Your task to perform on an android device: Open Google Image 0: 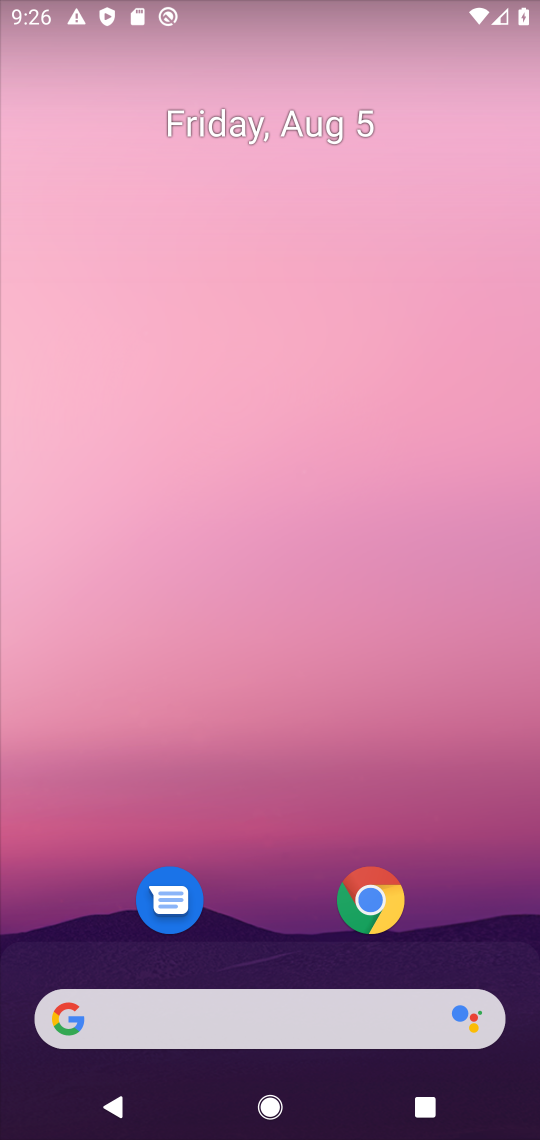
Step 0: drag from (410, 692) to (349, 477)
Your task to perform on an android device: Open Google Image 1: 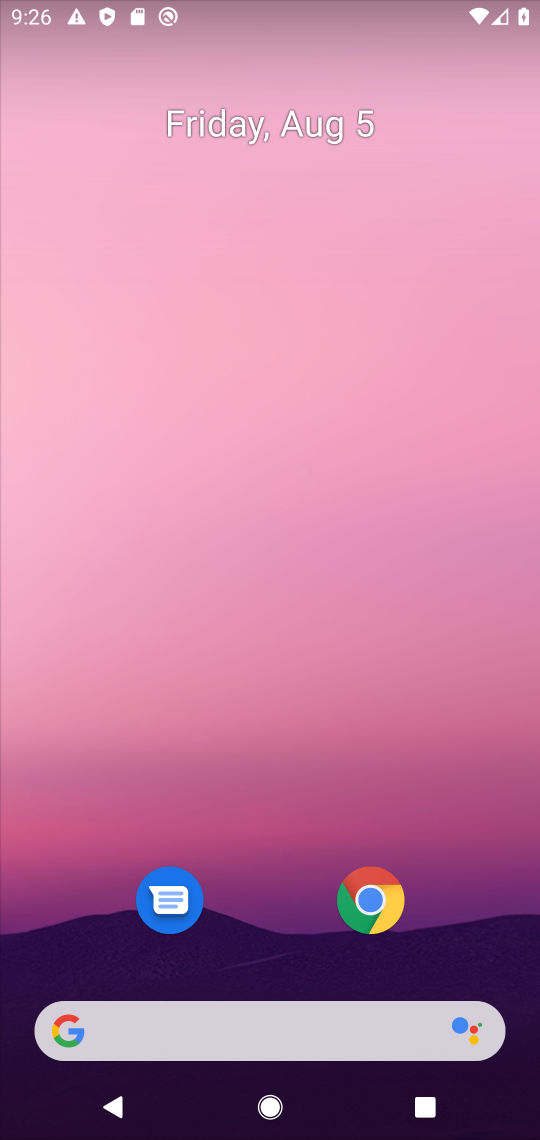
Step 1: drag from (286, 943) to (235, 191)
Your task to perform on an android device: Open Google Image 2: 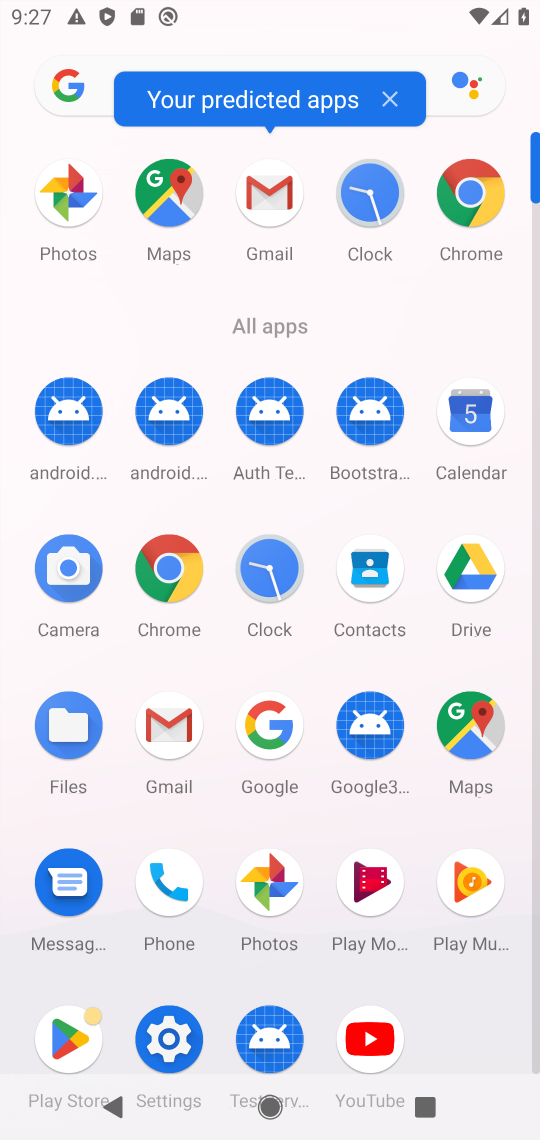
Step 2: click (265, 754)
Your task to perform on an android device: Open Google Image 3: 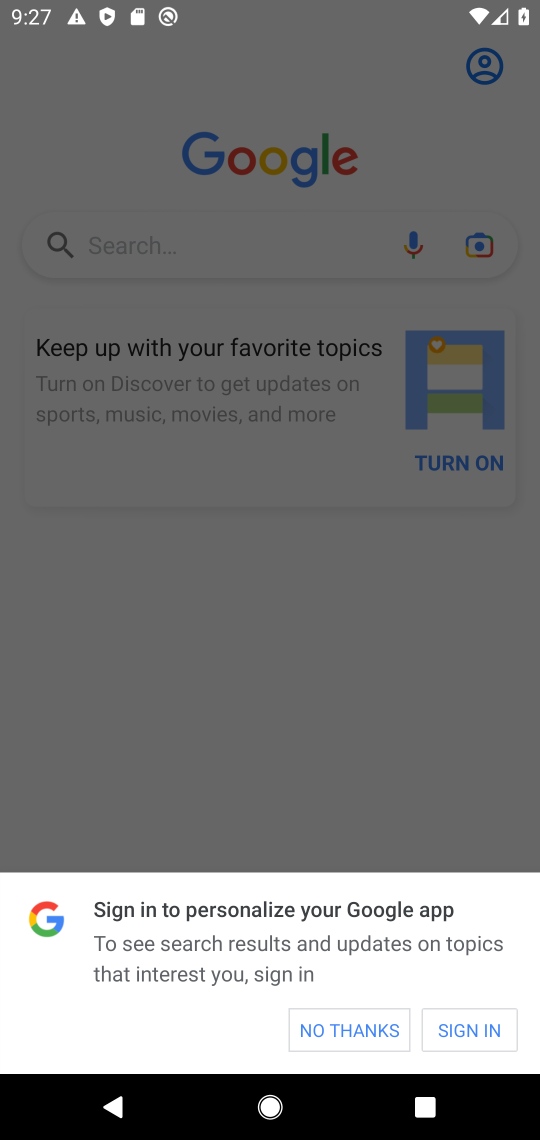
Step 3: click (376, 1032)
Your task to perform on an android device: Open Google Image 4: 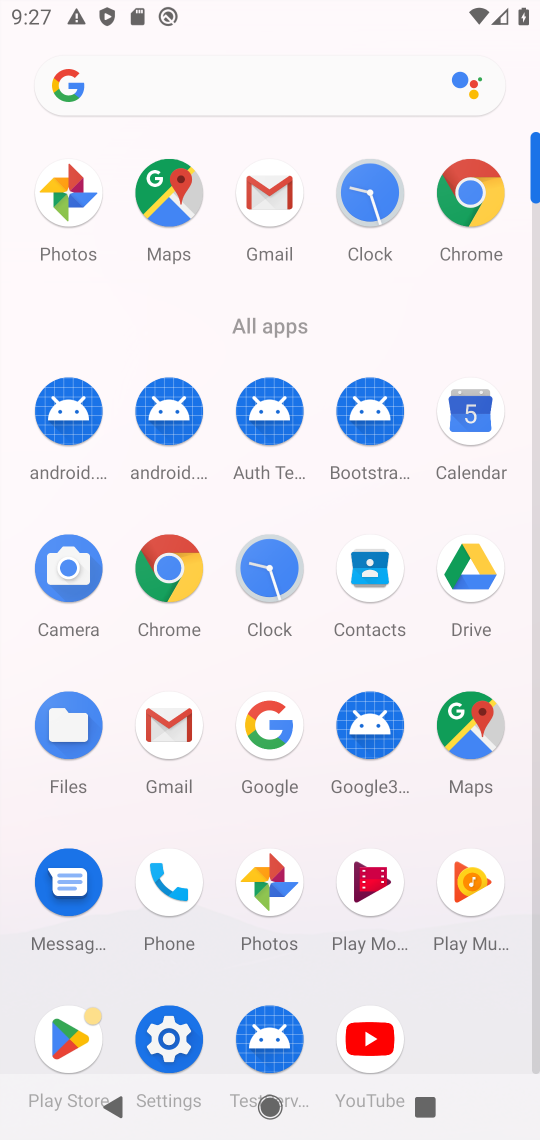
Step 4: click (266, 742)
Your task to perform on an android device: Open Google Image 5: 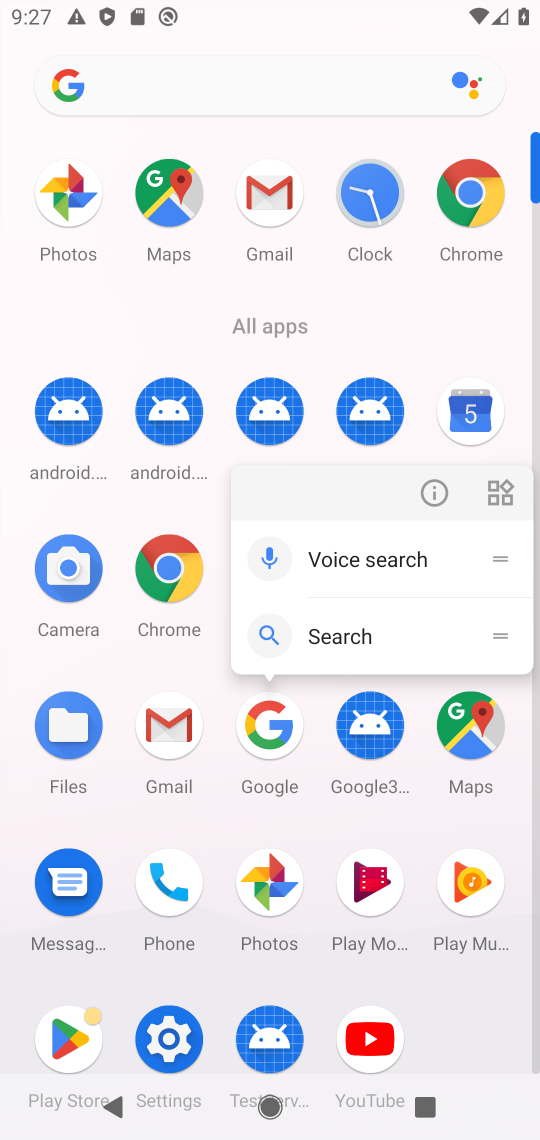
Step 5: click (266, 742)
Your task to perform on an android device: Open Google Image 6: 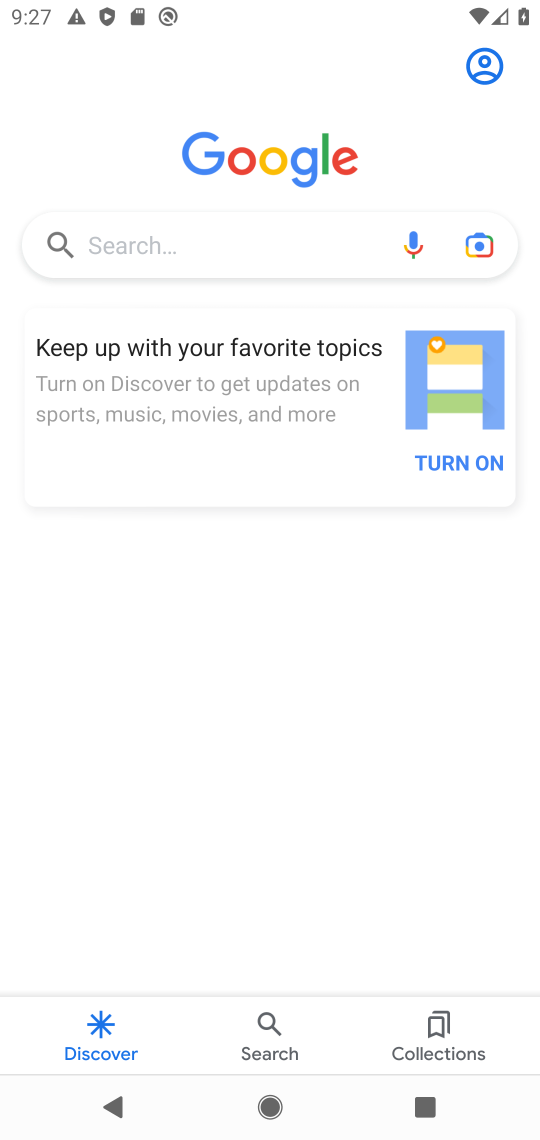
Step 6: task complete